Your task to perform on an android device: Check the news Image 0: 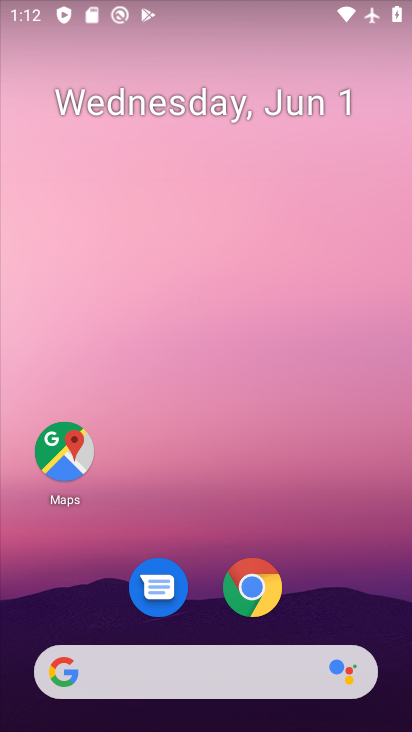
Step 0: click (173, 670)
Your task to perform on an android device: Check the news Image 1: 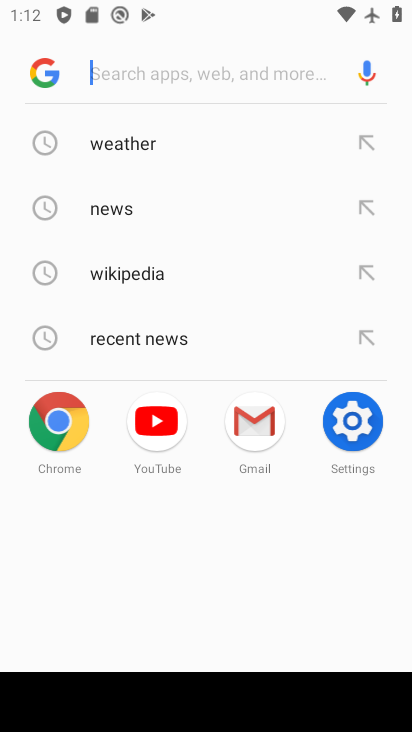
Step 1: click (117, 212)
Your task to perform on an android device: Check the news Image 2: 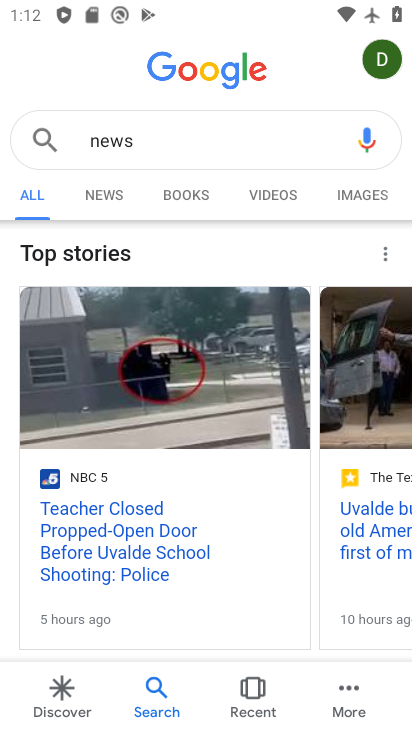
Step 2: task complete